Your task to perform on an android device: Go to location settings Image 0: 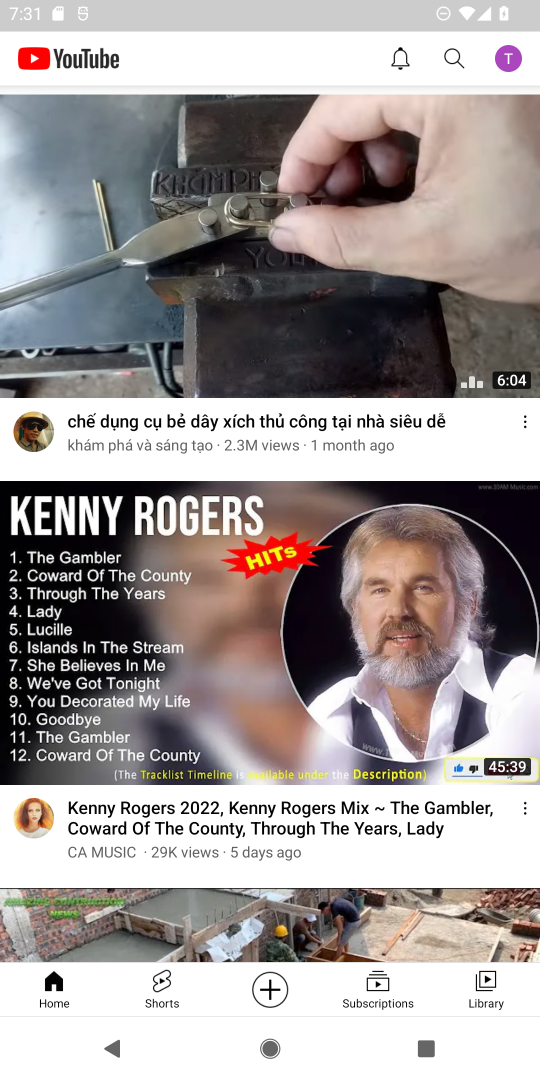
Step 0: press home button
Your task to perform on an android device: Go to location settings Image 1: 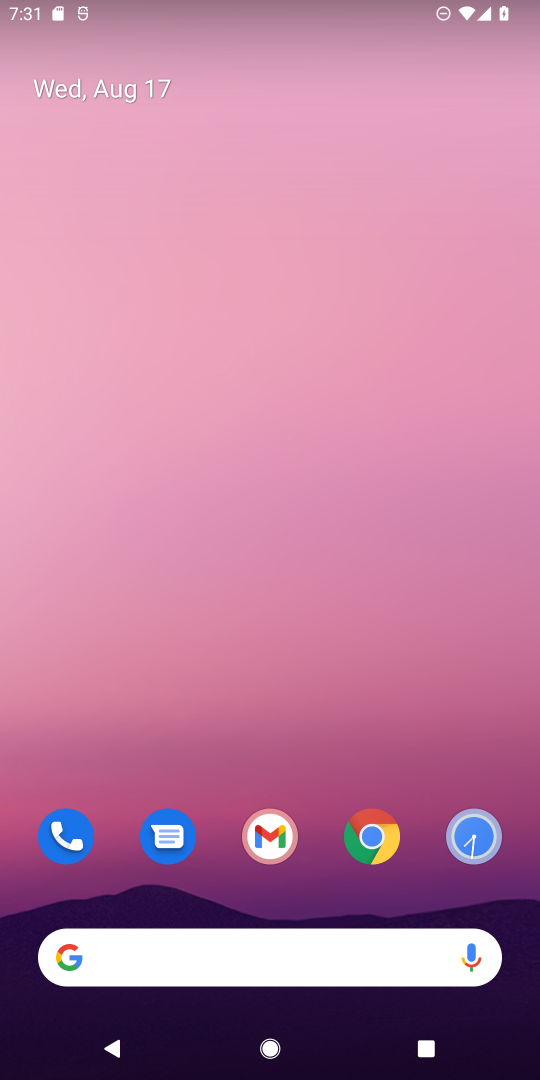
Step 1: drag from (197, 701) to (216, 454)
Your task to perform on an android device: Go to location settings Image 2: 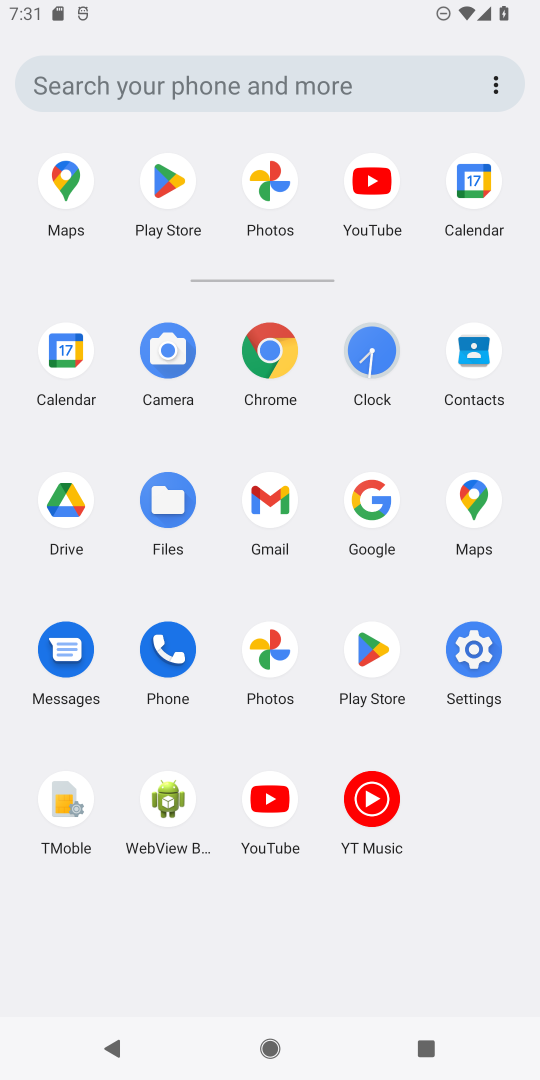
Step 2: click (475, 639)
Your task to perform on an android device: Go to location settings Image 3: 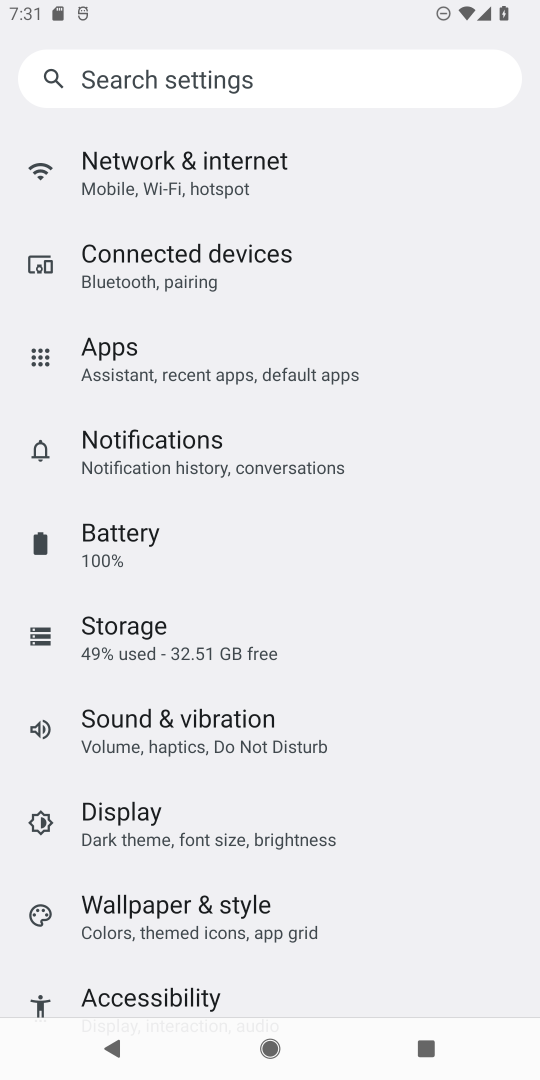
Step 3: drag from (164, 908) to (260, 302)
Your task to perform on an android device: Go to location settings Image 4: 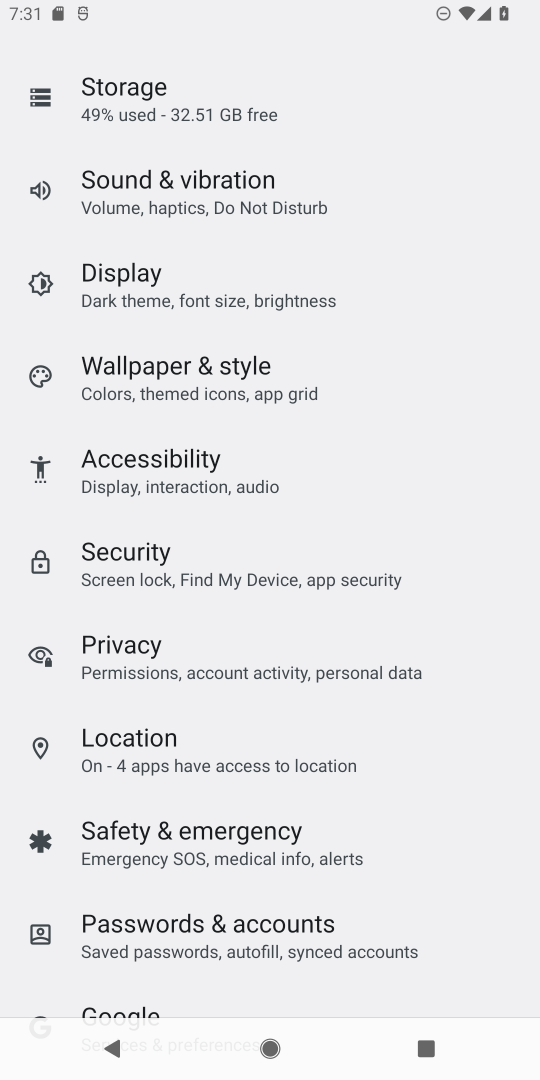
Step 4: click (190, 735)
Your task to perform on an android device: Go to location settings Image 5: 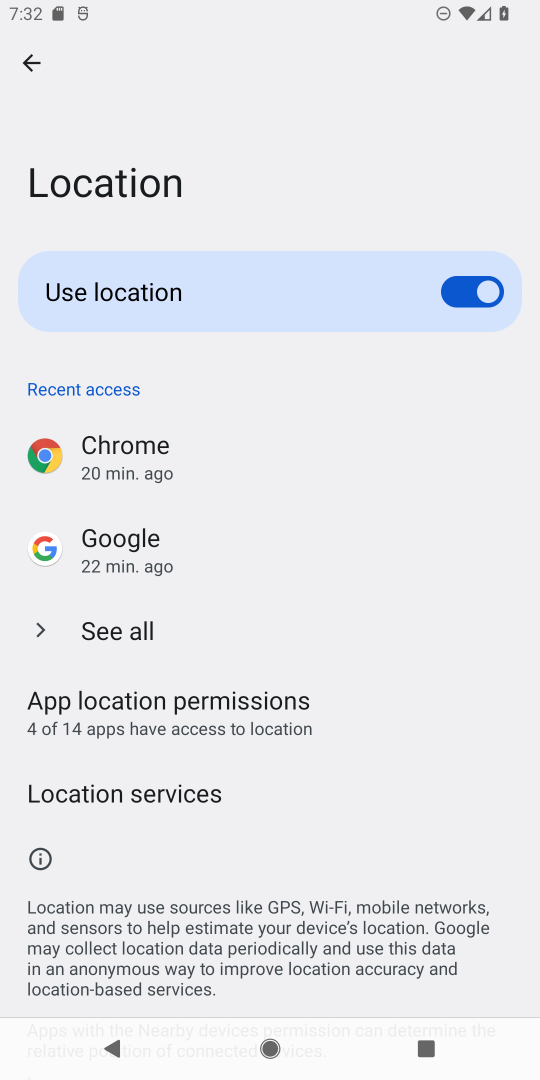
Step 5: task complete